Your task to perform on an android device: Open internet settings Image 0: 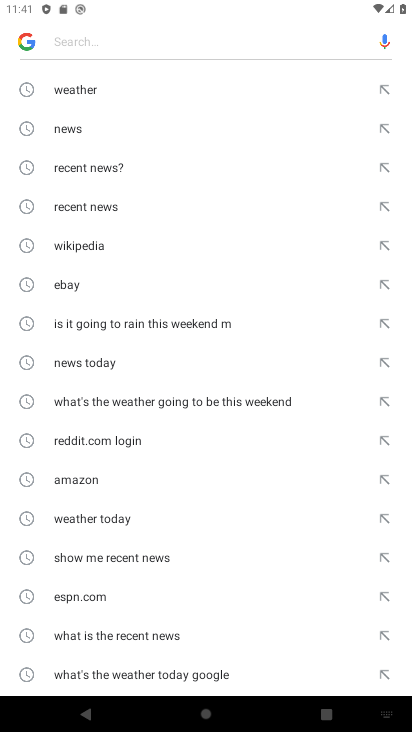
Step 0: press home button
Your task to perform on an android device: Open internet settings Image 1: 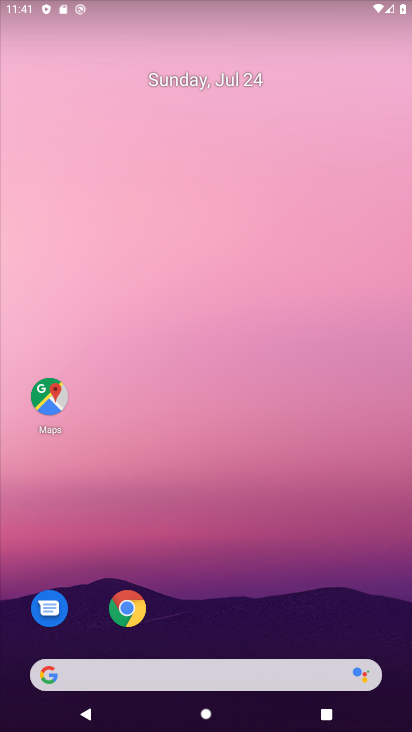
Step 1: drag from (82, 451) to (284, 56)
Your task to perform on an android device: Open internet settings Image 2: 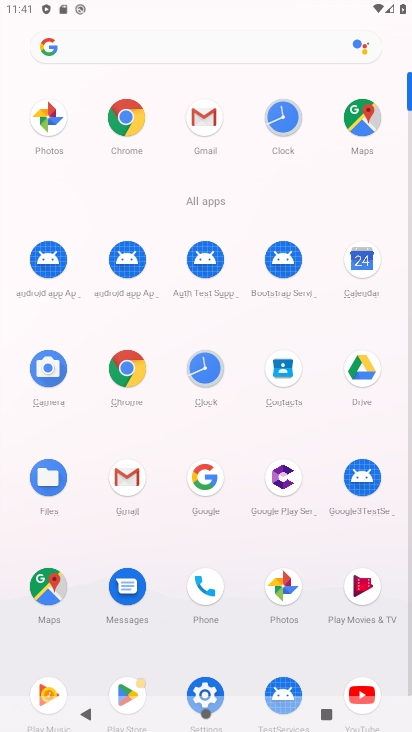
Step 2: click (203, 680)
Your task to perform on an android device: Open internet settings Image 3: 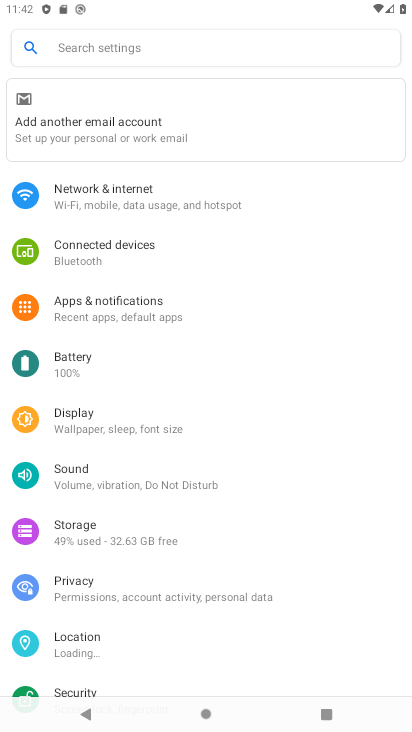
Step 3: click (139, 208)
Your task to perform on an android device: Open internet settings Image 4: 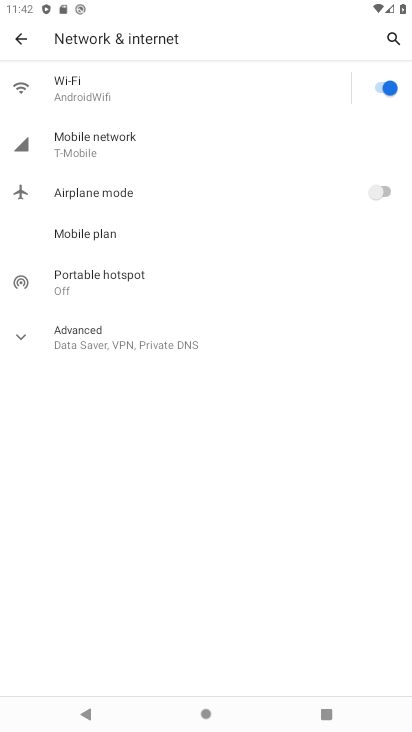
Step 4: click (130, 141)
Your task to perform on an android device: Open internet settings Image 5: 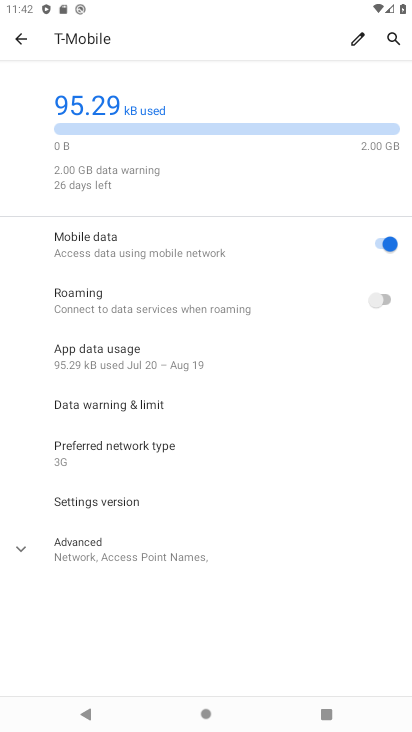
Step 5: task complete